Your task to perform on an android device: Open calendar and show me the fourth week of next month Image 0: 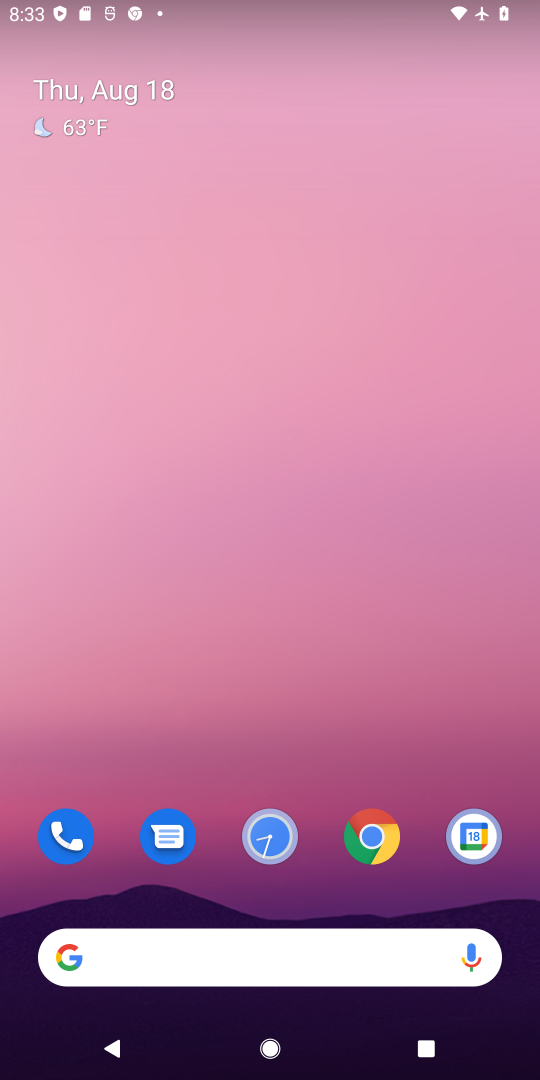
Step 0: drag from (339, 899) to (354, 103)
Your task to perform on an android device: Open calendar and show me the fourth week of next month Image 1: 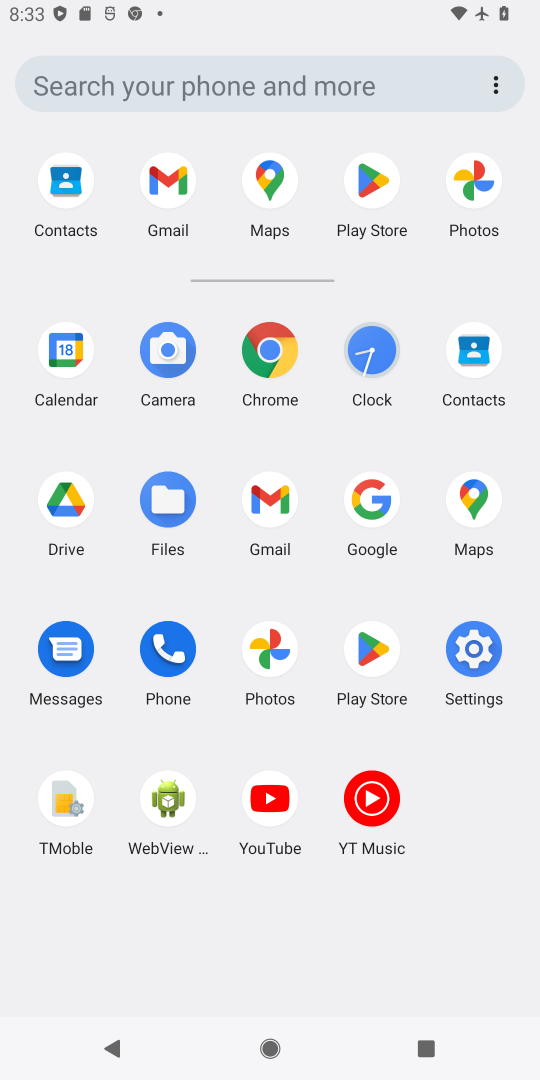
Step 1: click (62, 361)
Your task to perform on an android device: Open calendar and show me the fourth week of next month Image 2: 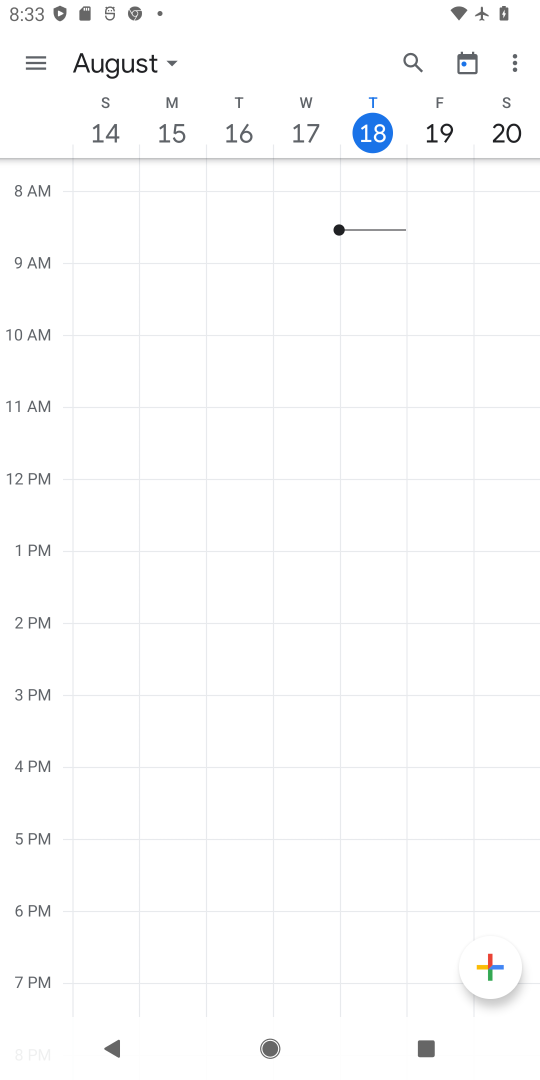
Step 2: click (146, 59)
Your task to perform on an android device: Open calendar and show me the fourth week of next month Image 3: 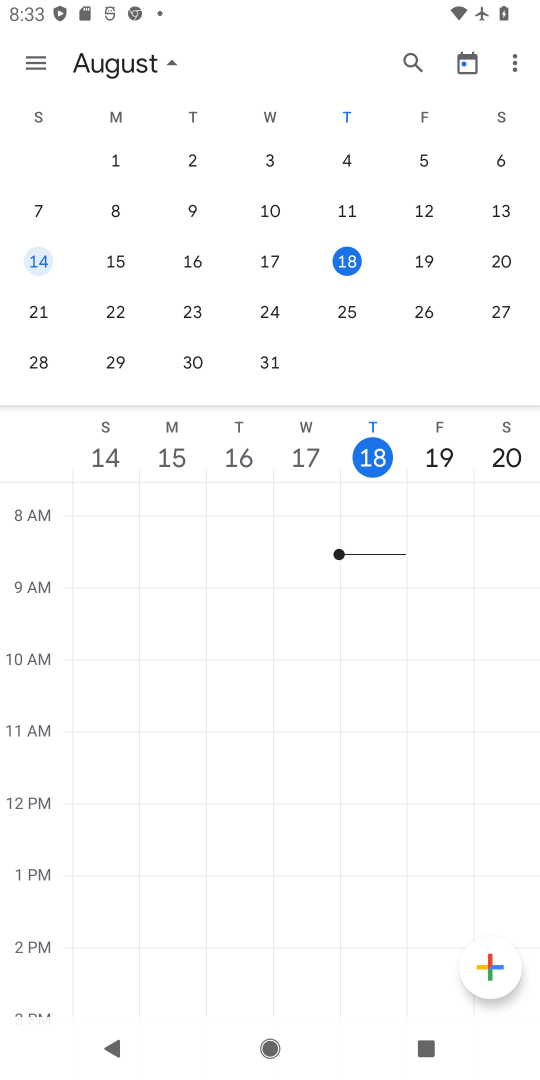
Step 3: drag from (504, 324) to (117, 244)
Your task to perform on an android device: Open calendar and show me the fourth week of next month Image 4: 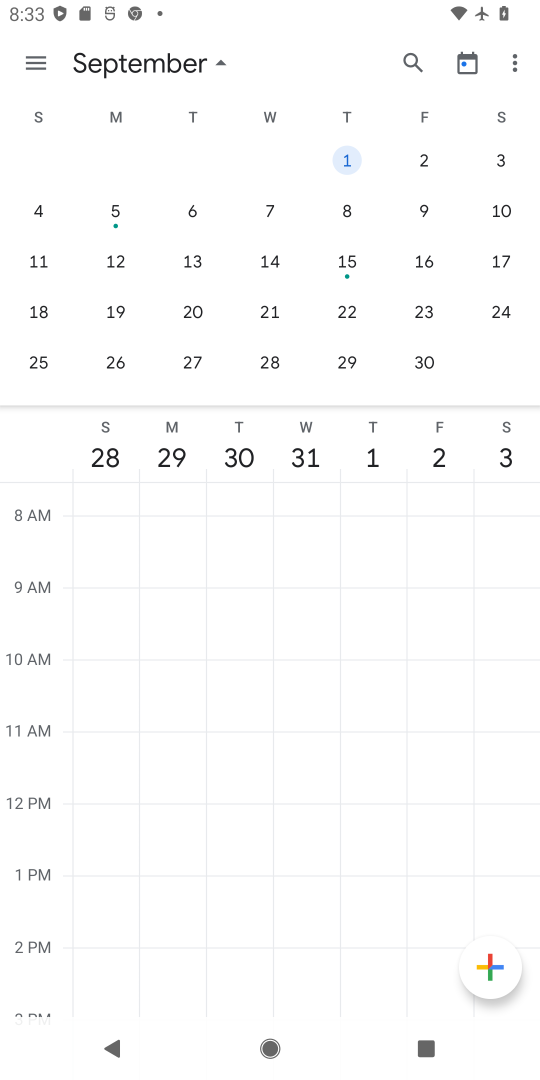
Step 4: click (40, 384)
Your task to perform on an android device: Open calendar and show me the fourth week of next month Image 5: 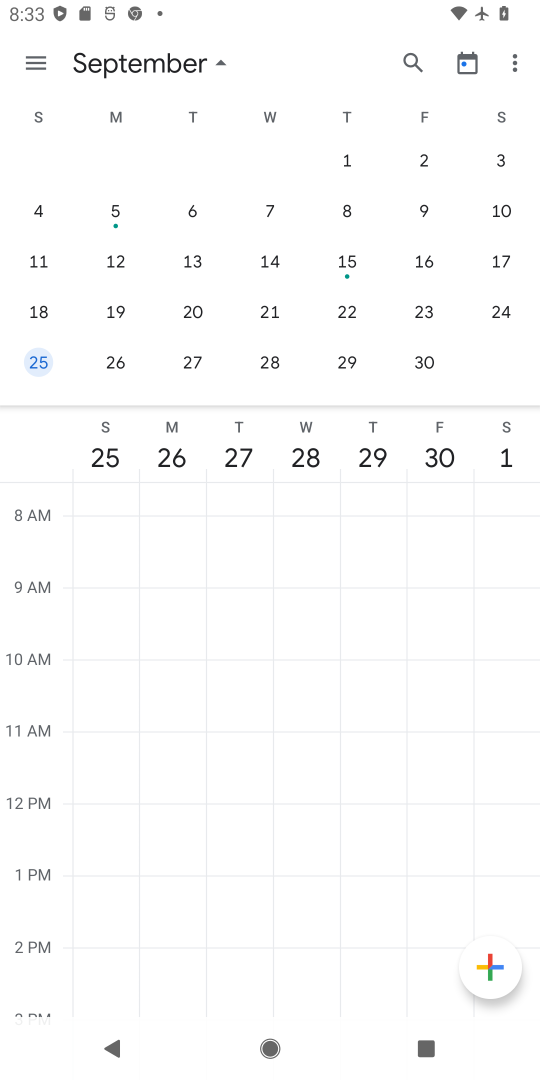
Step 5: task complete